Your task to perform on an android device: turn off improve location accuracy Image 0: 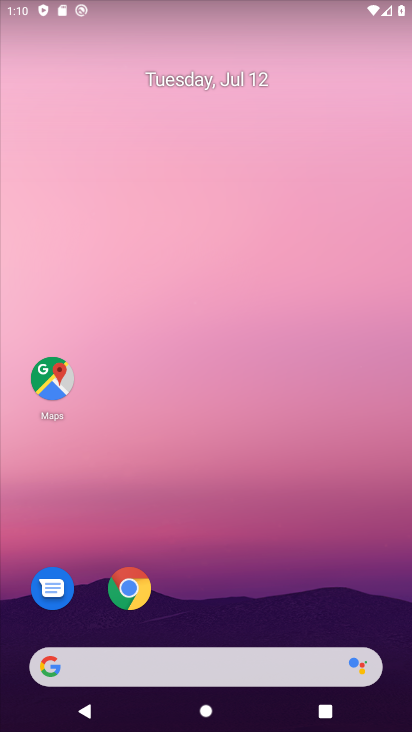
Step 0: click (215, 249)
Your task to perform on an android device: turn off improve location accuracy Image 1: 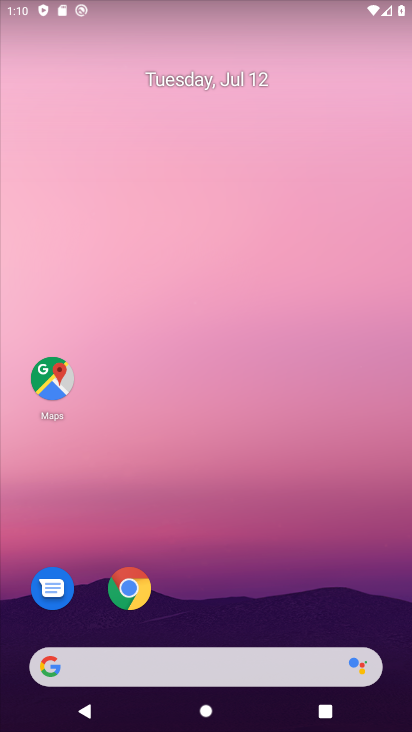
Step 1: drag from (187, 623) to (307, 131)
Your task to perform on an android device: turn off improve location accuracy Image 2: 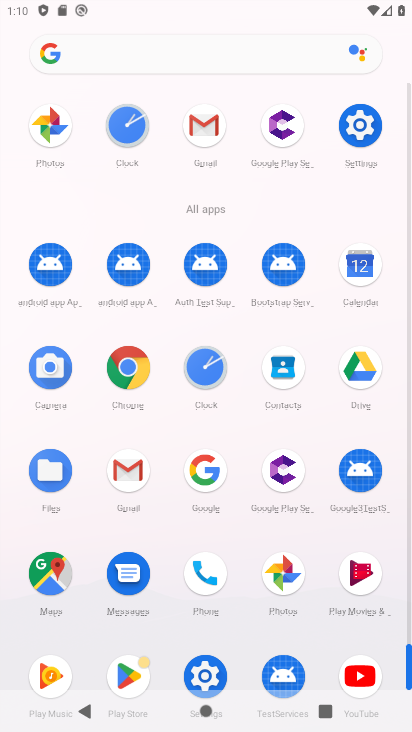
Step 2: click (359, 126)
Your task to perform on an android device: turn off improve location accuracy Image 3: 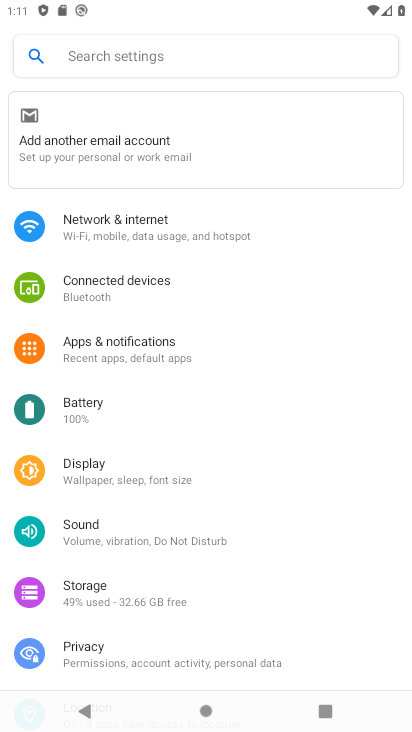
Step 3: drag from (135, 586) to (211, 67)
Your task to perform on an android device: turn off improve location accuracy Image 4: 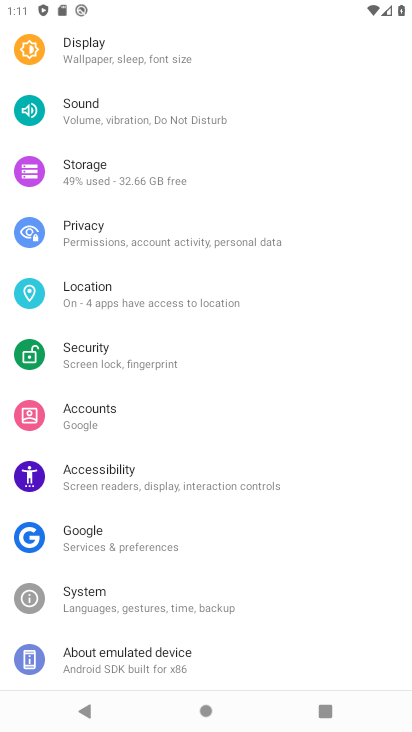
Step 4: click (167, 302)
Your task to perform on an android device: turn off improve location accuracy Image 5: 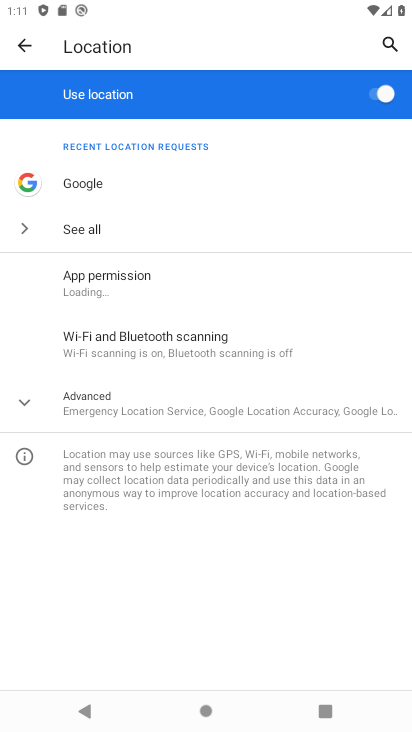
Step 5: click (139, 392)
Your task to perform on an android device: turn off improve location accuracy Image 6: 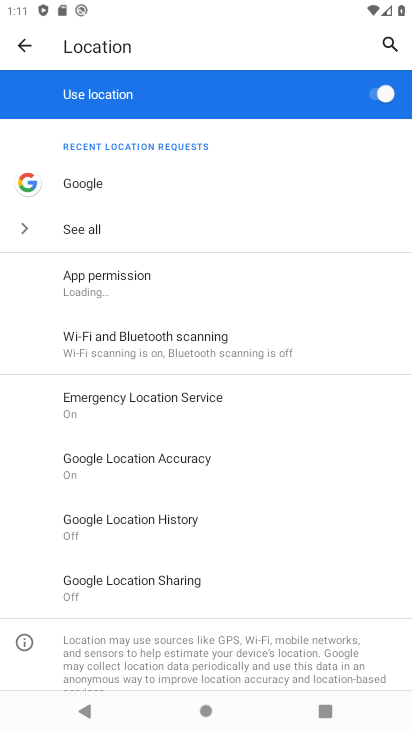
Step 6: click (202, 451)
Your task to perform on an android device: turn off improve location accuracy Image 7: 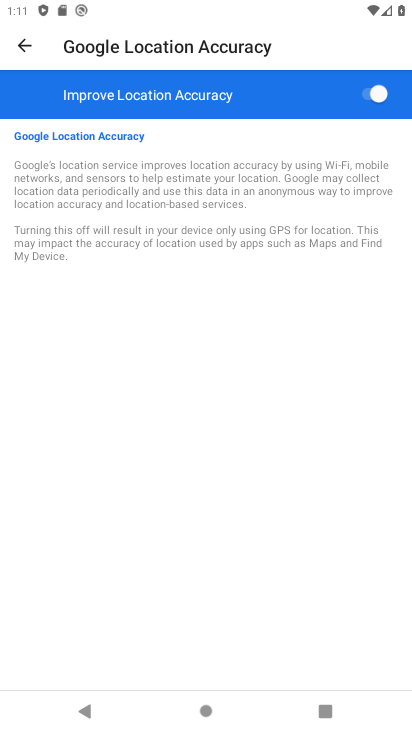
Step 7: click (373, 97)
Your task to perform on an android device: turn off improve location accuracy Image 8: 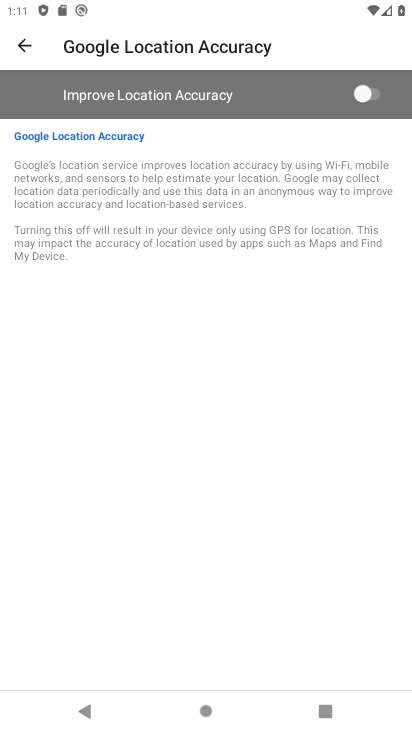
Step 8: task complete